Your task to perform on an android device: change the upload size in google photos Image 0: 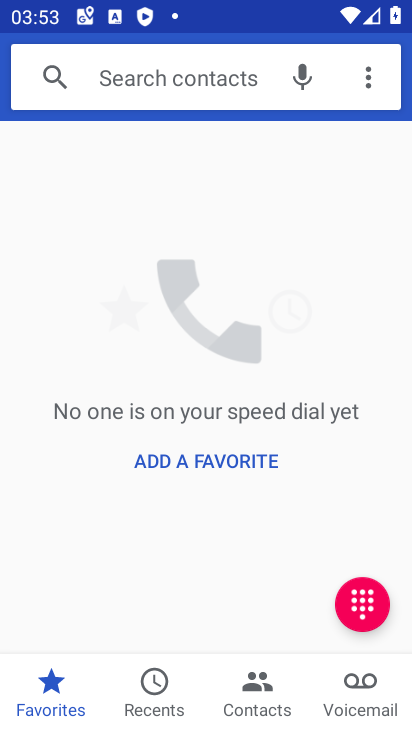
Step 0: press home button
Your task to perform on an android device: change the upload size in google photos Image 1: 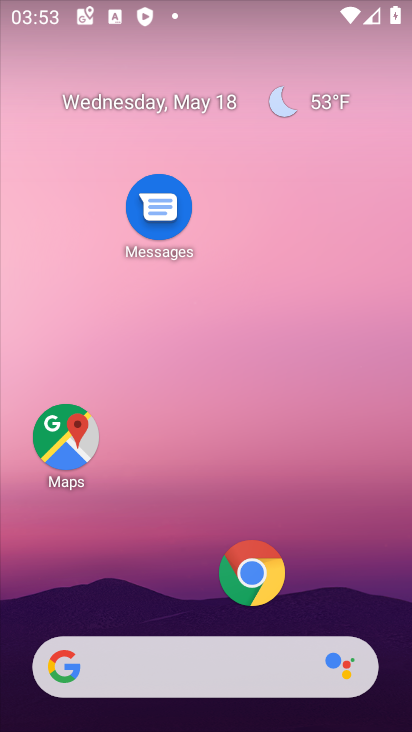
Step 1: drag from (181, 588) to (203, 205)
Your task to perform on an android device: change the upload size in google photos Image 2: 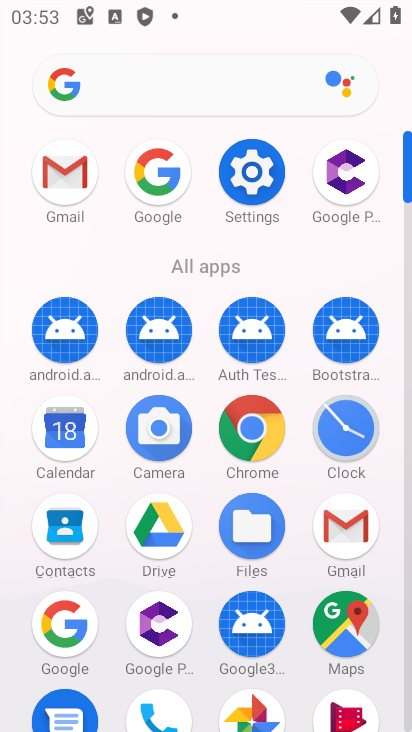
Step 2: drag from (227, 570) to (219, 315)
Your task to perform on an android device: change the upload size in google photos Image 3: 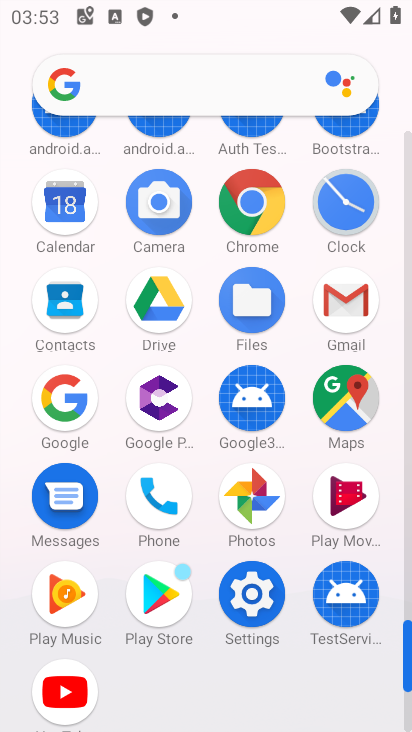
Step 3: click (248, 481)
Your task to perform on an android device: change the upload size in google photos Image 4: 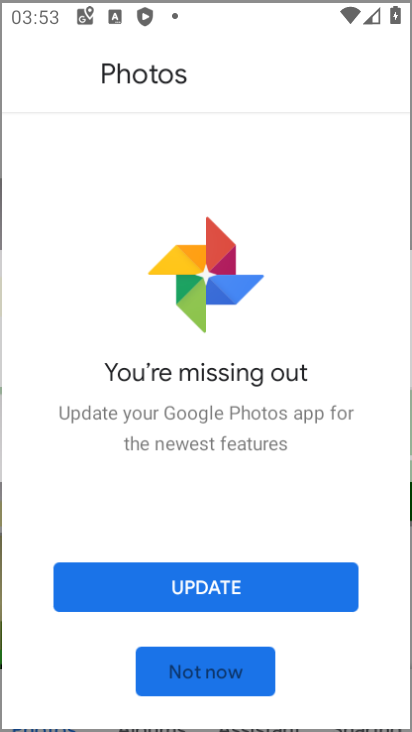
Step 4: click (270, 441)
Your task to perform on an android device: change the upload size in google photos Image 5: 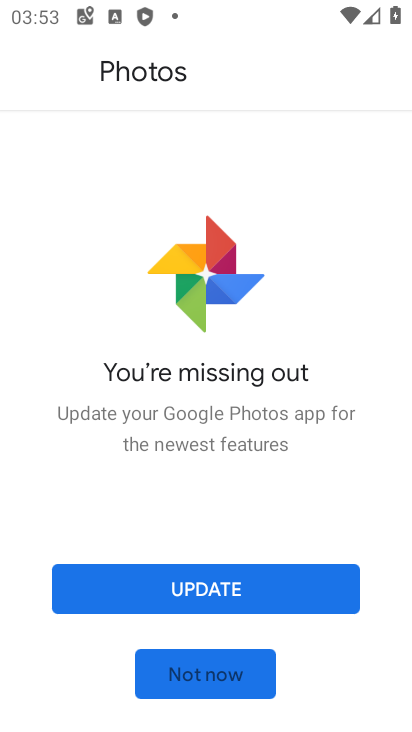
Step 5: click (245, 671)
Your task to perform on an android device: change the upload size in google photos Image 6: 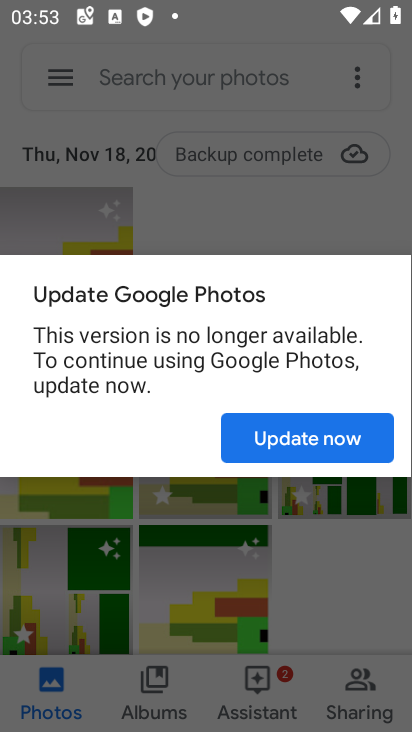
Step 6: click (273, 437)
Your task to perform on an android device: change the upload size in google photos Image 7: 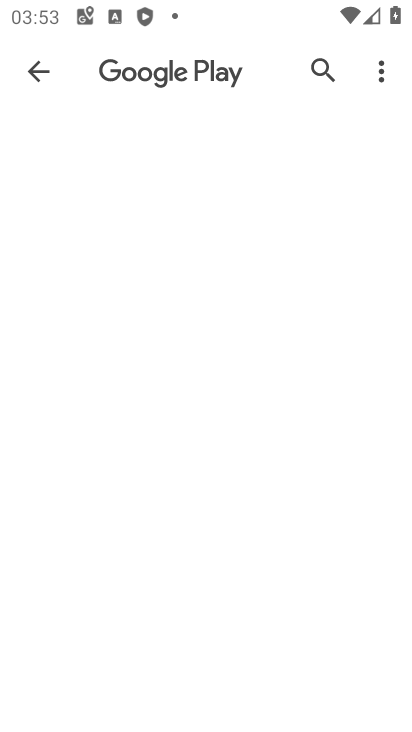
Step 7: press back button
Your task to perform on an android device: change the upload size in google photos Image 8: 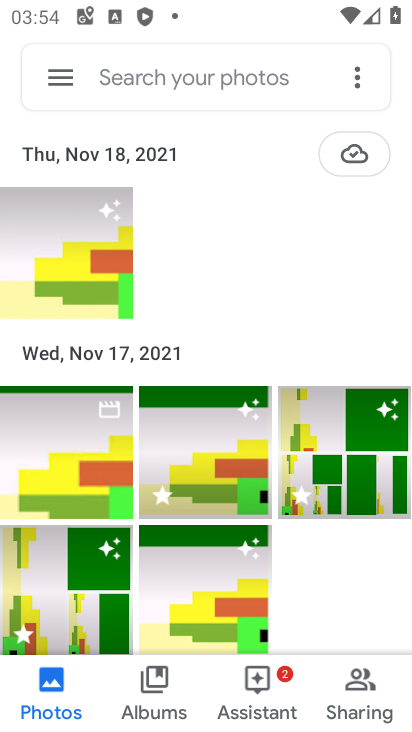
Step 8: click (66, 84)
Your task to perform on an android device: change the upload size in google photos Image 9: 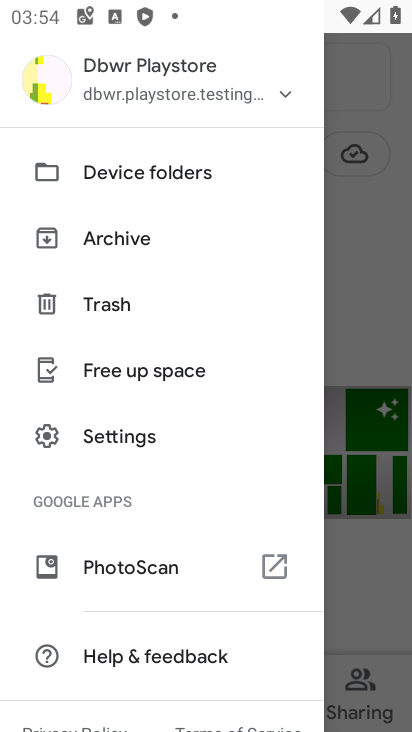
Step 9: click (104, 445)
Your task to perform on an android device: change the upload size in google photos Image 10: 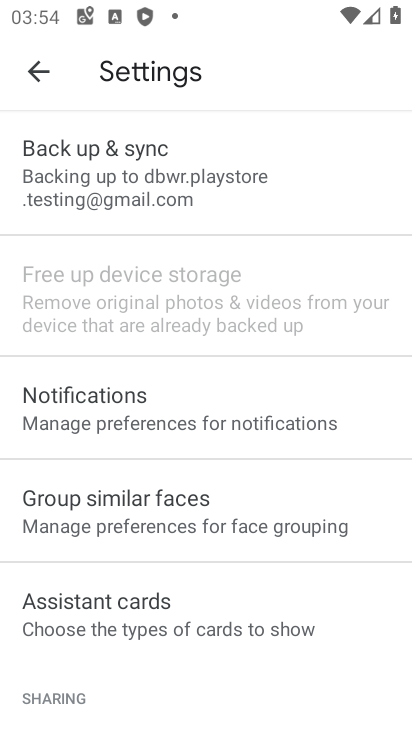
Step 10: drag from (171, 294) to (188, 546)
Your task to perform on an android device: change the upload size in google photos Image 11: 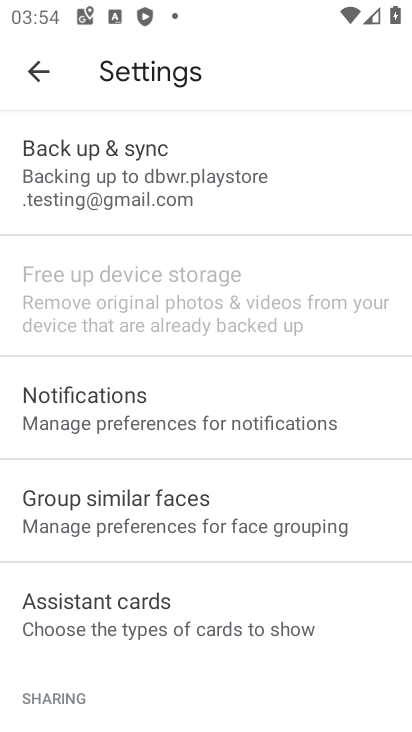
Step 11: drag from (183, 576) to (218, 325)
Your task to perform on an android device: change the upload size in google photos Image 12: 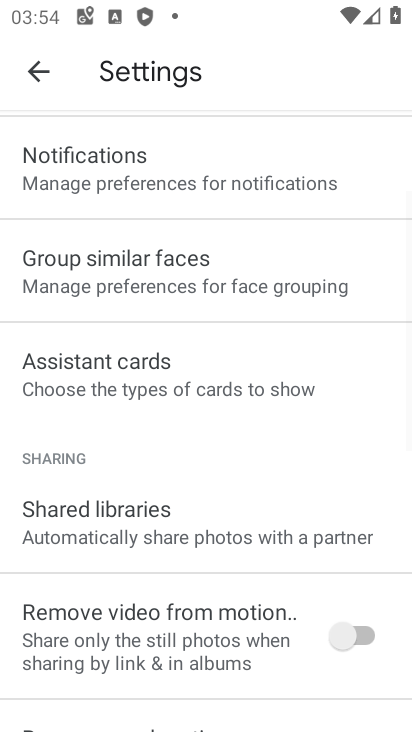
Step 12: drag from (218, 325) to (224, 524)
Your task to perform on an android device: change the upload size in google photos Image 13: 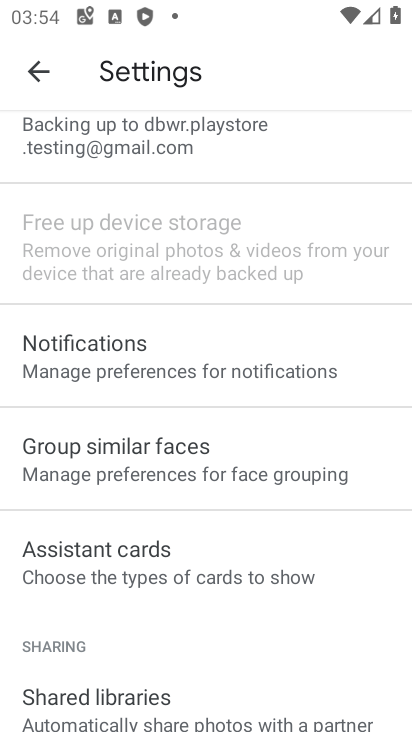
Step 13: drag from (174, 289) to (201, 451)
Your task to perform on an android device: change the upload size in google photos Image 14: 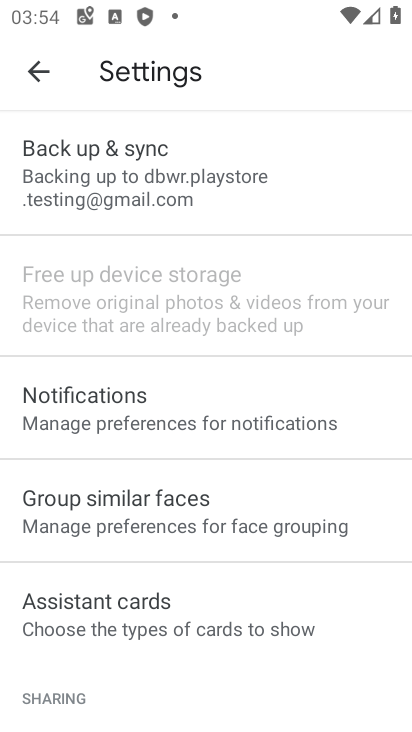
Step 14: click (146, 187)
Your task to perform on an android device: change the upload size in google photos Image 15: 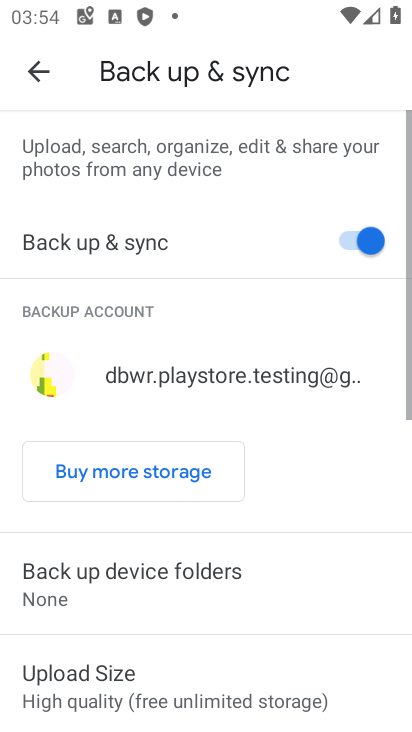
Step 15: drag from (167, 586) to (191, 401)
Your task to perform on an android device: change the upload size in google photos Image 16: 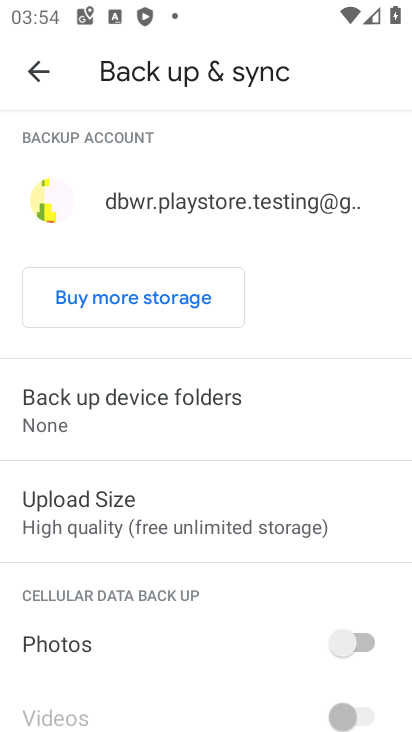
Step 16: click (129, 501)
Your task to perform on an android device: change the upload size in google photos Image 17: 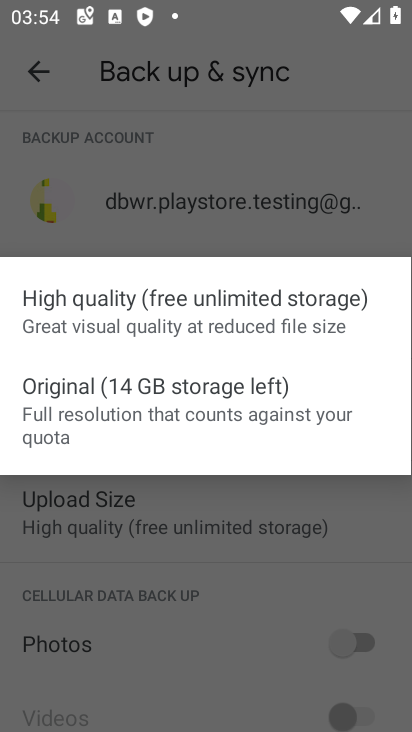
Step 17: click (126, 416)
Your task to perform on an android device: change the upload size in google photos Image 18: 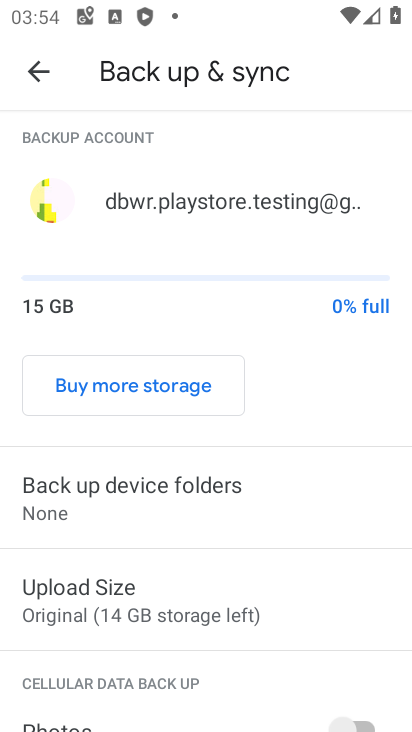
Step 18: task complete